Your task to perform on an android device: Set the phone to "Do not disturb". Image 0: 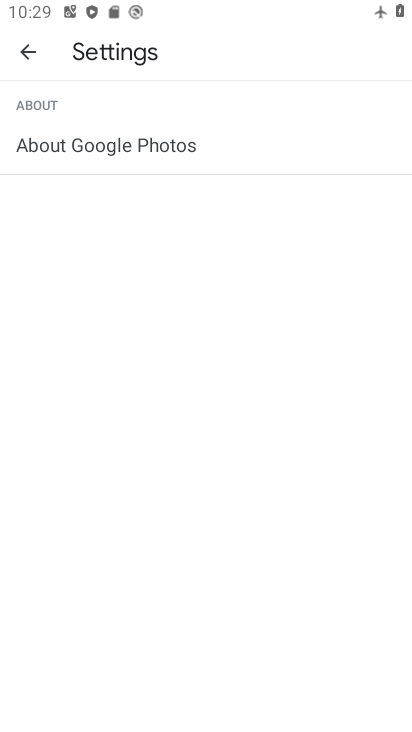
Step 0: press home button
Your task to perform on an android device: Set the phone to "Do not disturb". Image 1: 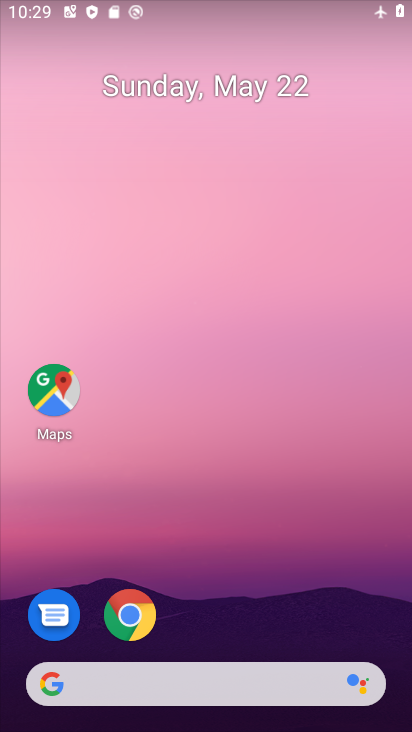
Step 1: drag from (206, 7) to (284, 604)
Your task to perform on an android device: Set the phone to "Do not disturb". Image 2: 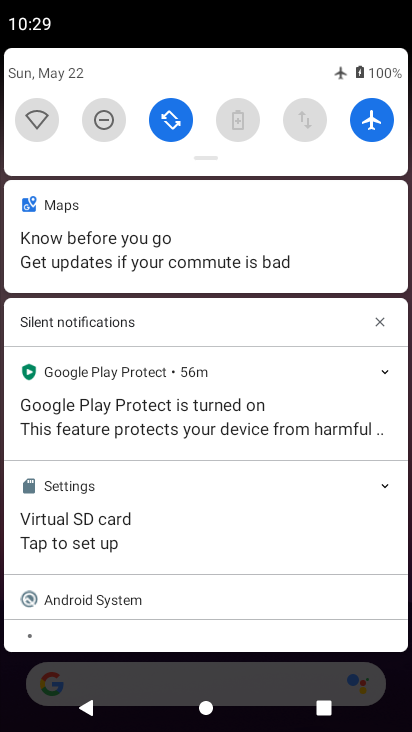
Step 2: click (109, 123)
Your task to perform on an android device: Set the phone to "Do not disturb". Image 3: 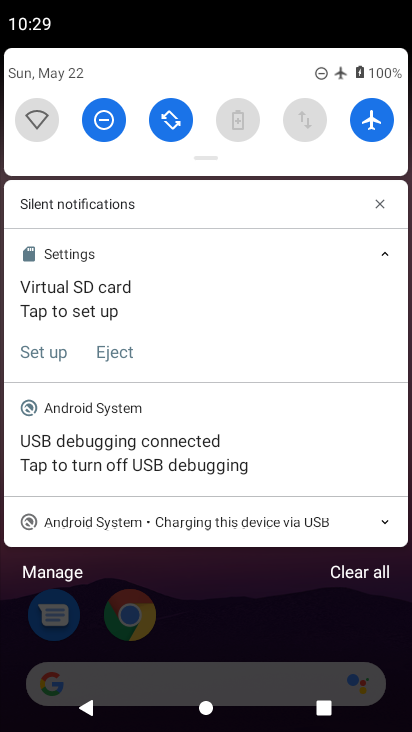
Step 3: task complete